Your task to perform on an android device: Open maps Image 0: 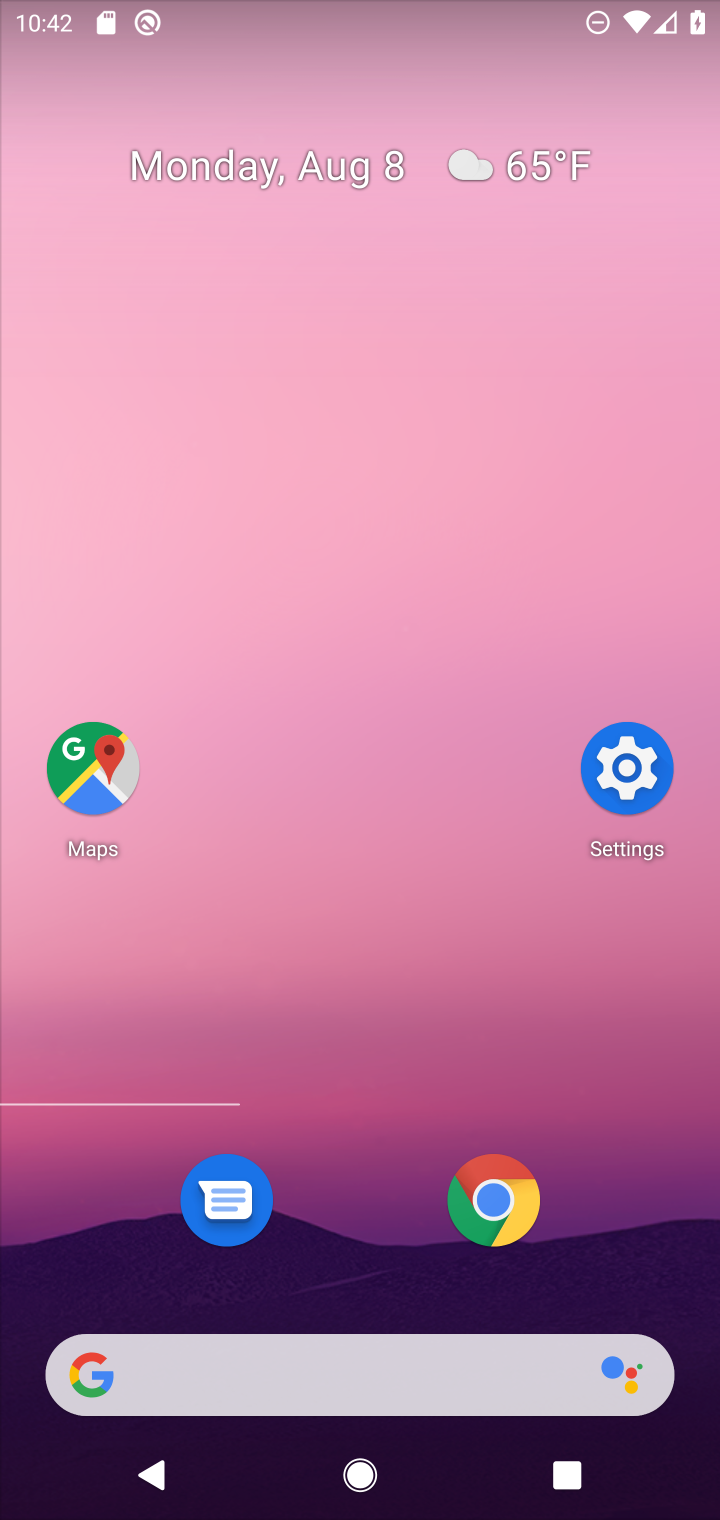
Step 0: click (99, 753)
Your task to perform on an android device: Open maps Image 1: 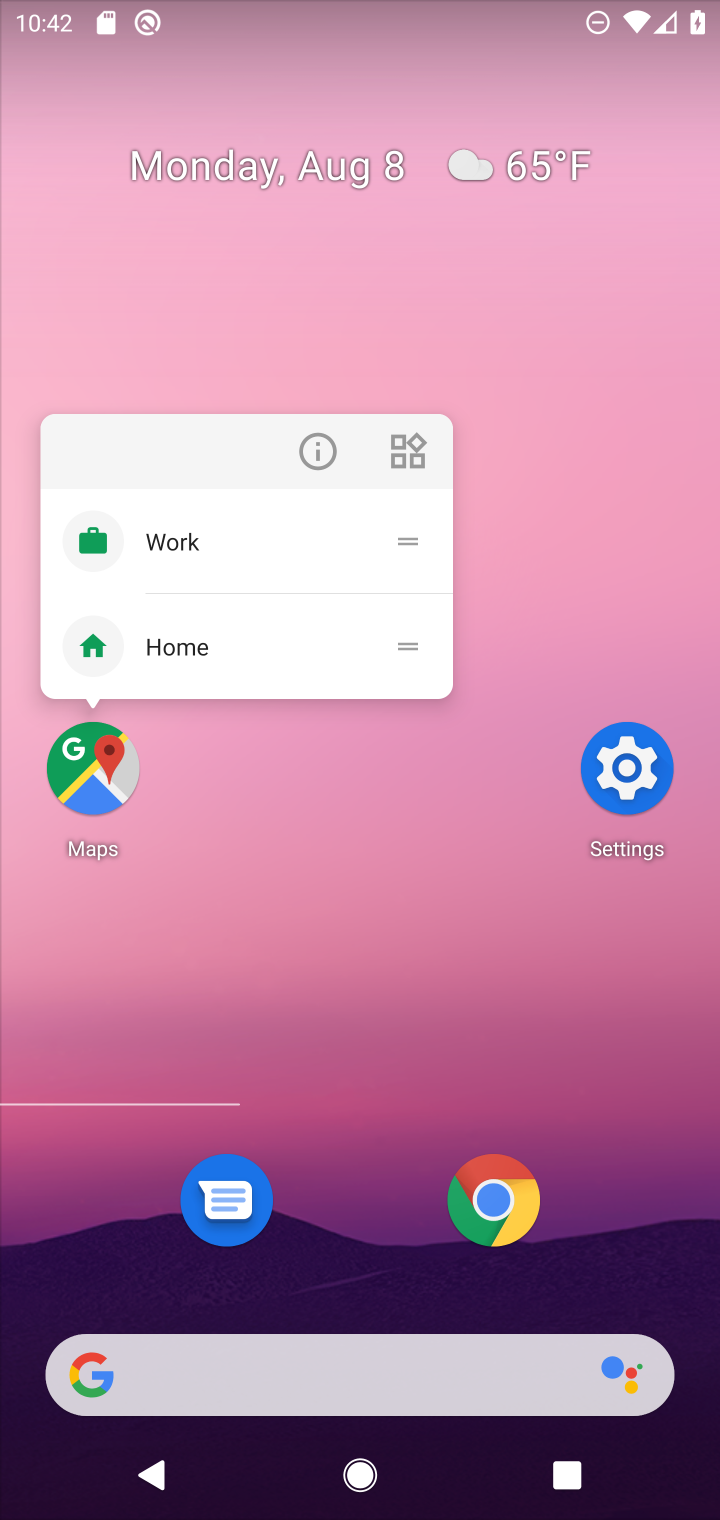
Step 1: click (99, 753)
Your task to perform on an android device: Open maps Image 2: 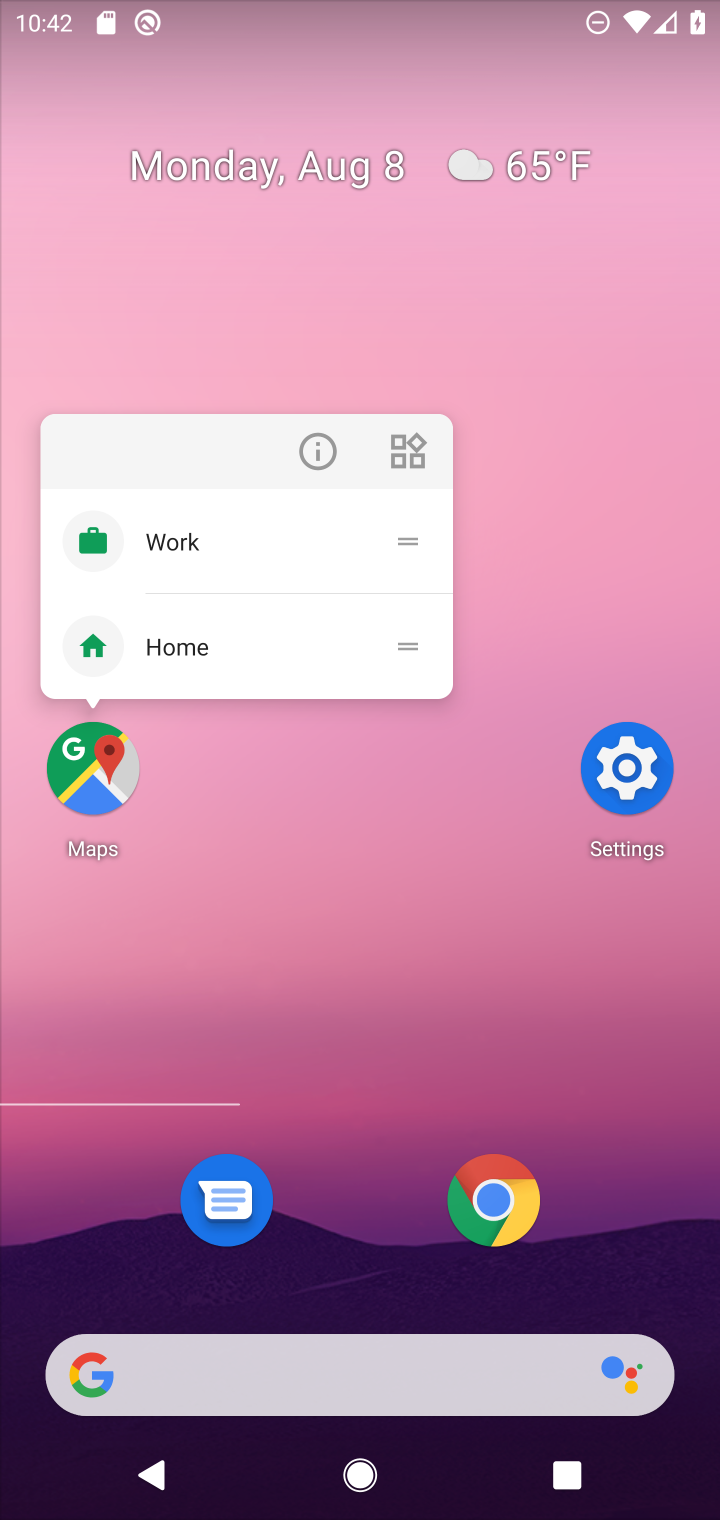
Step 2: click (95, 764)
Your task to perform on an android device: Open maps Image 3: 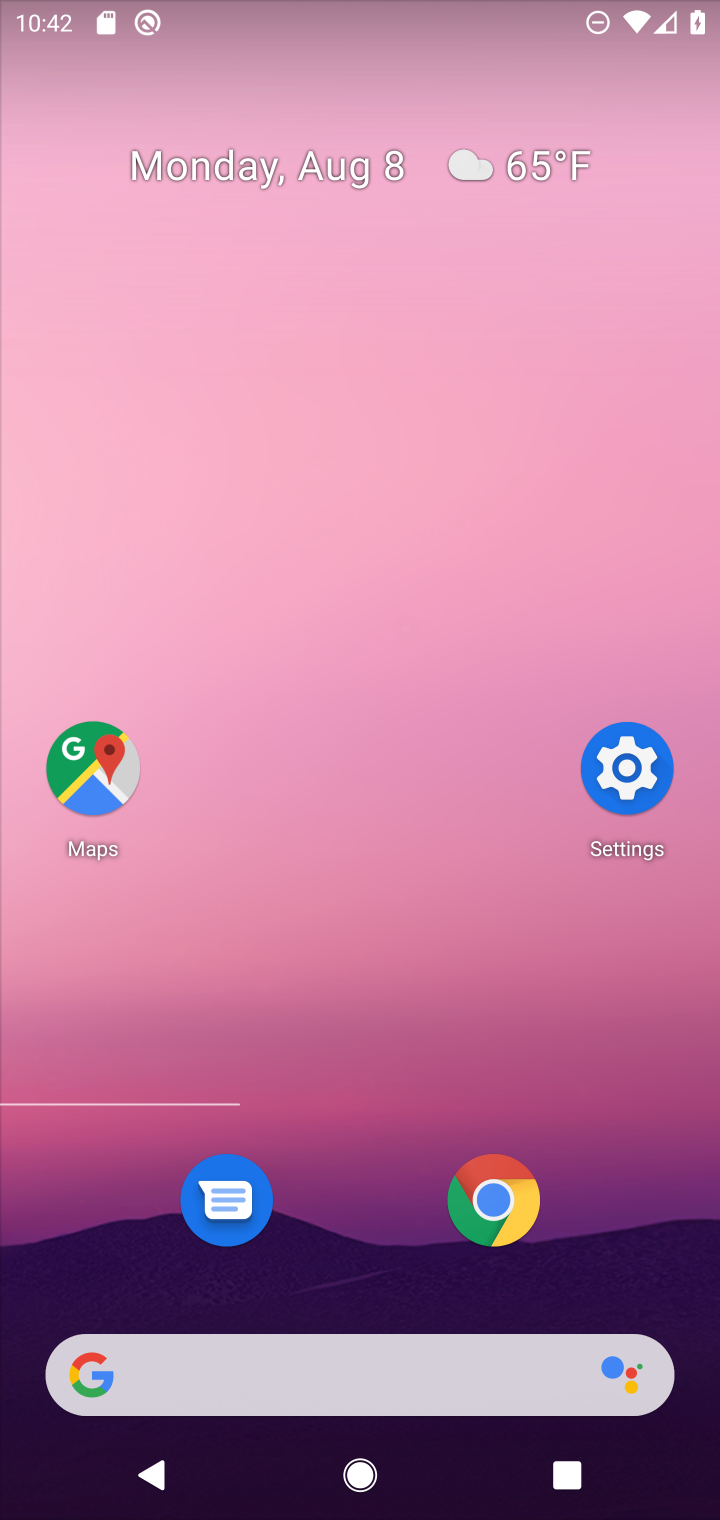
Step 3: click (95, 775)
Your task to perform on an android device: Open maps Image 4: 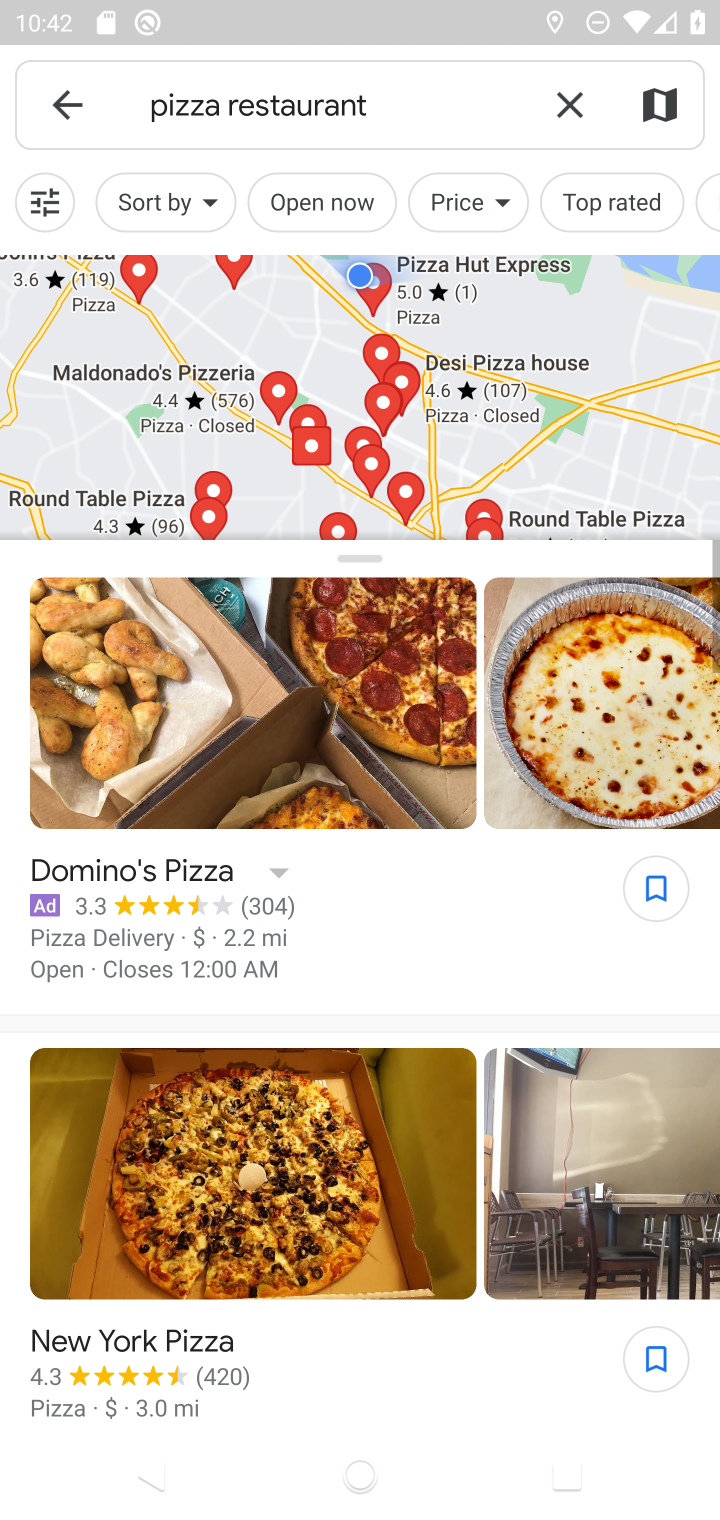
Step 4: click (55, 82)
Your task to perform on an android device: Open maps Image 5: 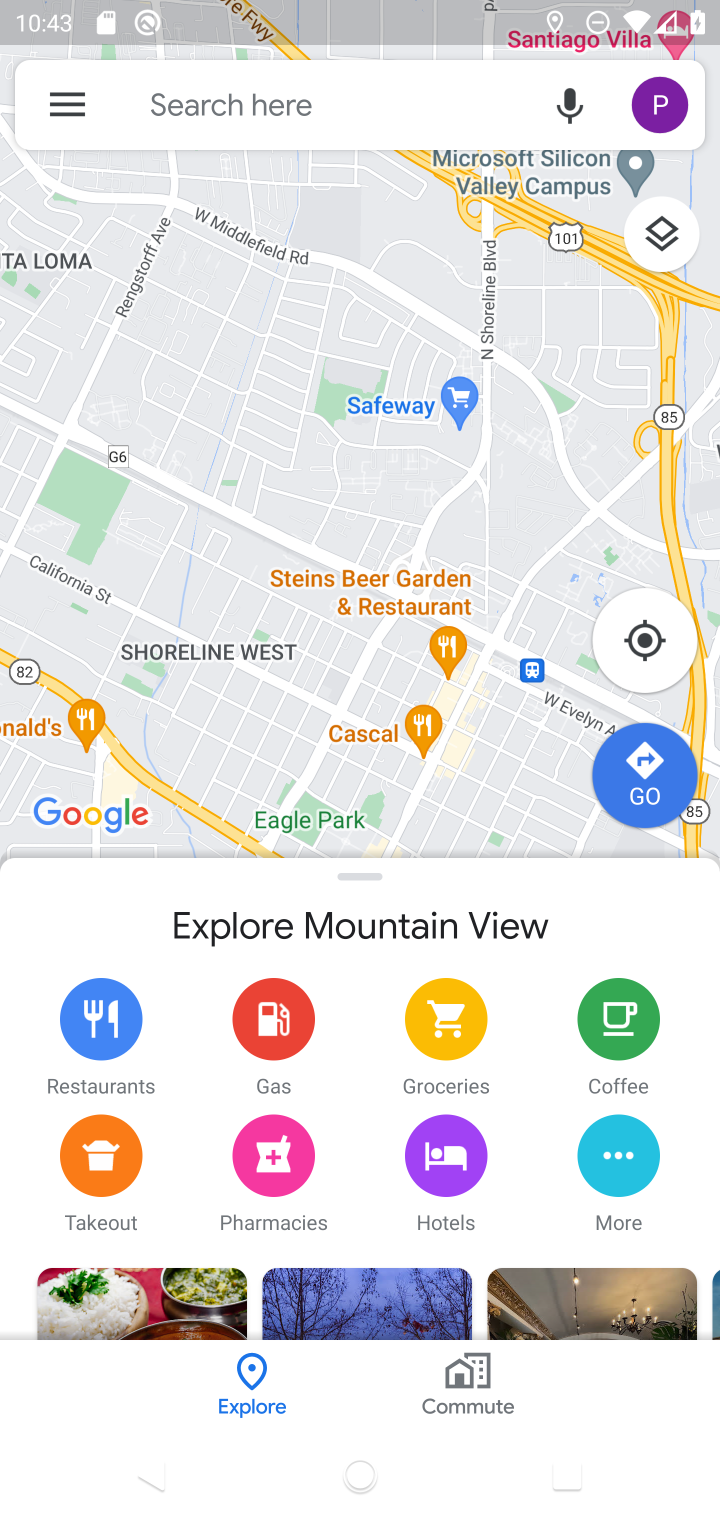
Step 5: task complete